Your task to perform on an android device: set the timer Image 0: 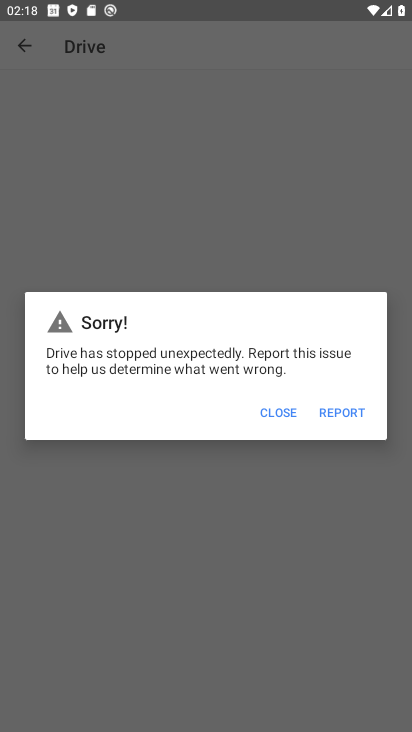
Step 0: press back button
Your task to perform on an android device: set the timer Image 1: 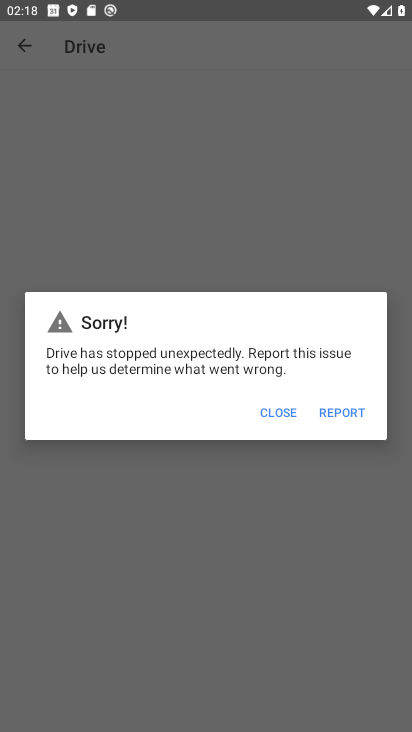
Step 1: press back button
Your task to perform on an android device: set the timer Image 2: 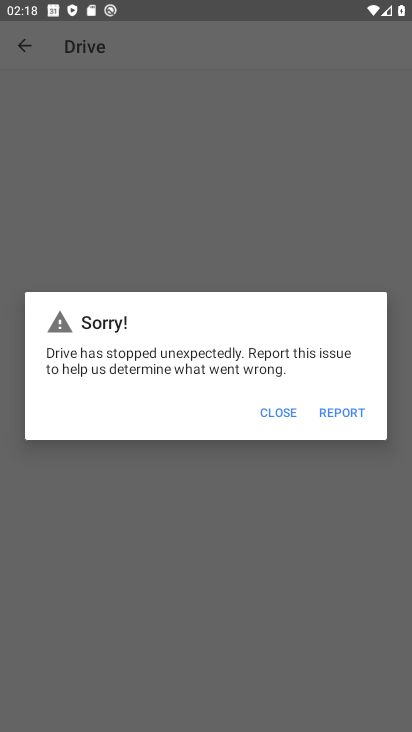
Step 2: press home button
Your task to perform on an android device: set the timer Image 3: 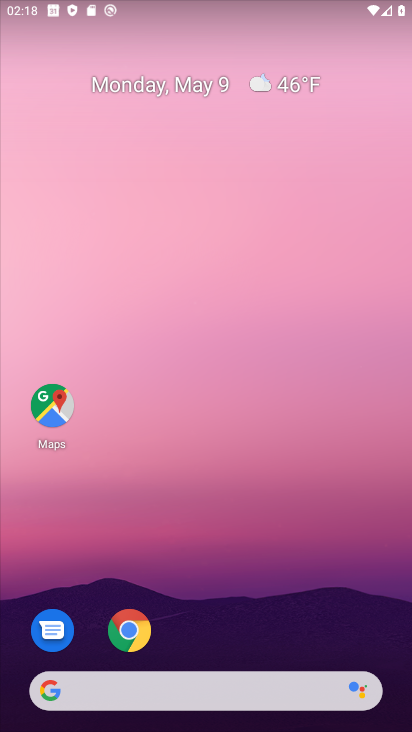
Step 3: drag from (193, 516) to (199, 76)
Your task to perform on an android device: set the timer Image 4: 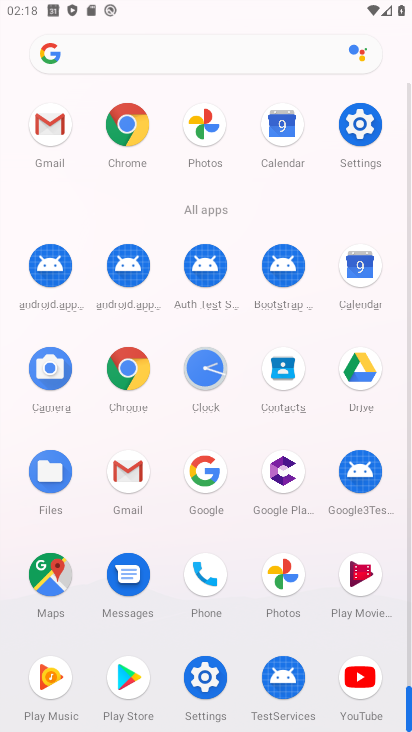
Step 4: click (203, 364)
Your task to perform on an android device: set the timer Image 5: 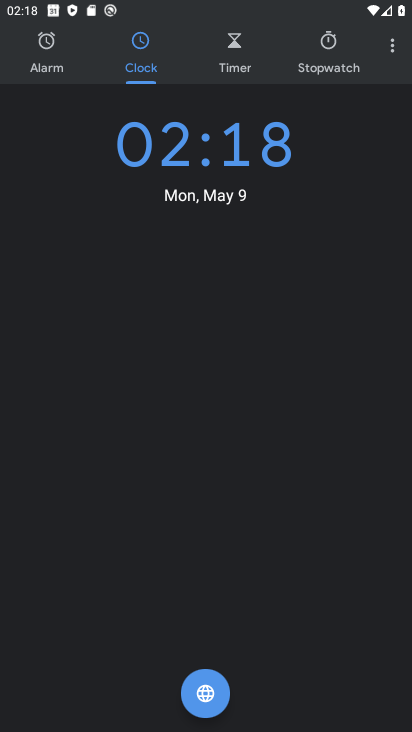
Step 5: click (238, 47)
Your task to perform on an android device: set the timer Image 6: 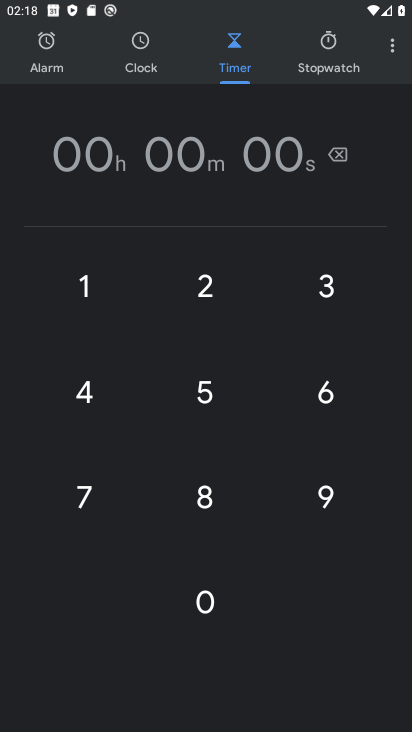
Step 6: type "123"
Your task to perform on an android device: set the timer Image 7: 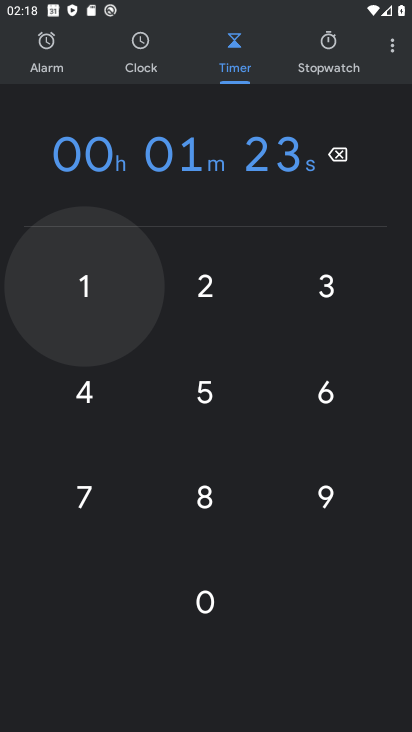
Step 7: type ""
Your task to perform on an android device: set the timer Image 8: 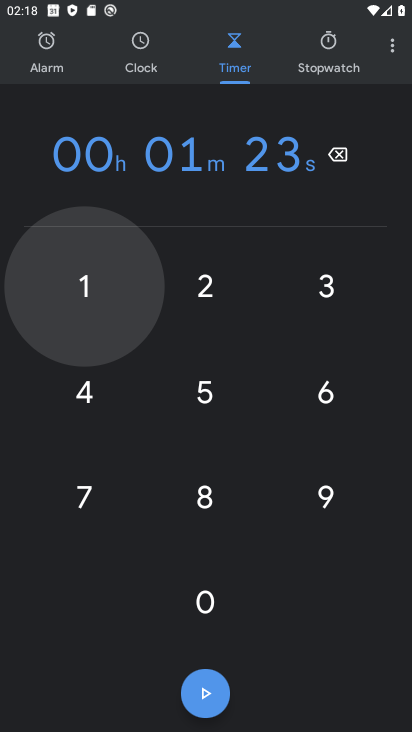
Step 8: click (214, 692)
Your task to perform on an android device: set the timer Image 9: 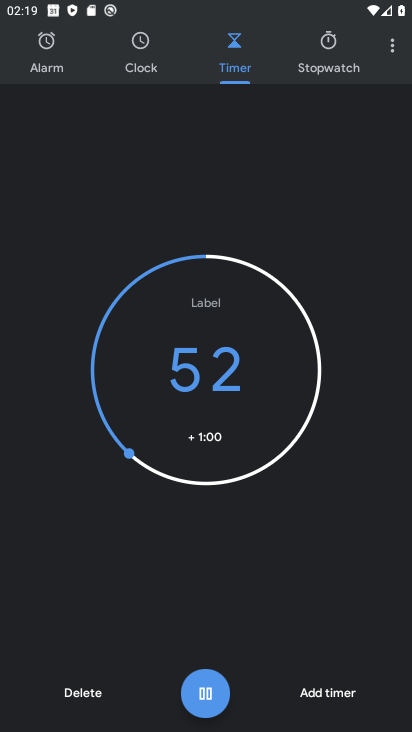
Step 9: click (198, 690)
Your task to perform on an android device: set the timer Image 10: 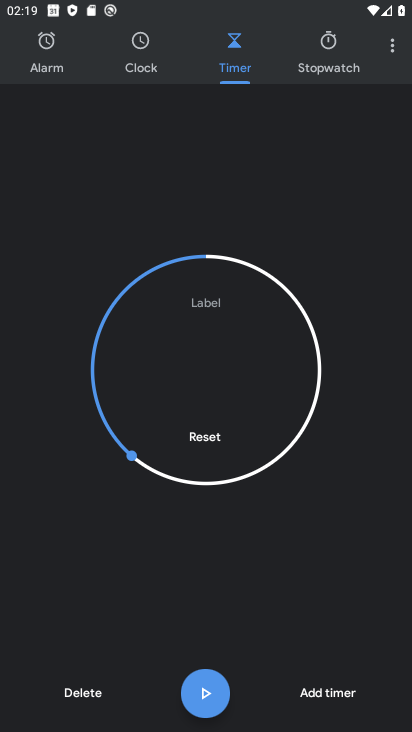
Step 10: task complete